Your task to perform on an android device: toggle translation in the chrome app Image 0: 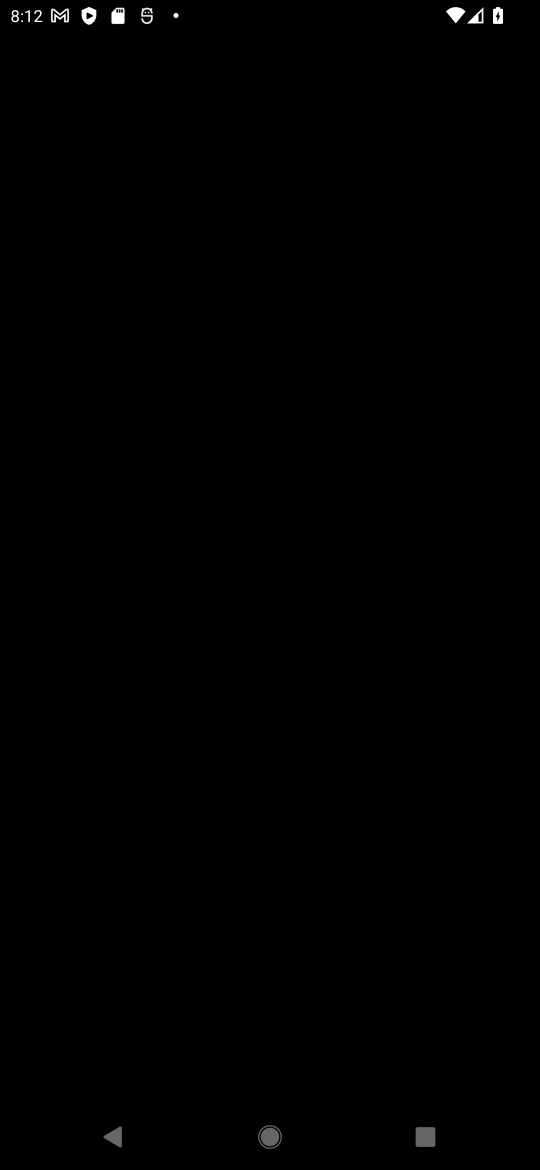
Step 0: press home button
Your task to perform on an android device: toggle translation in the chrome app Image 1: 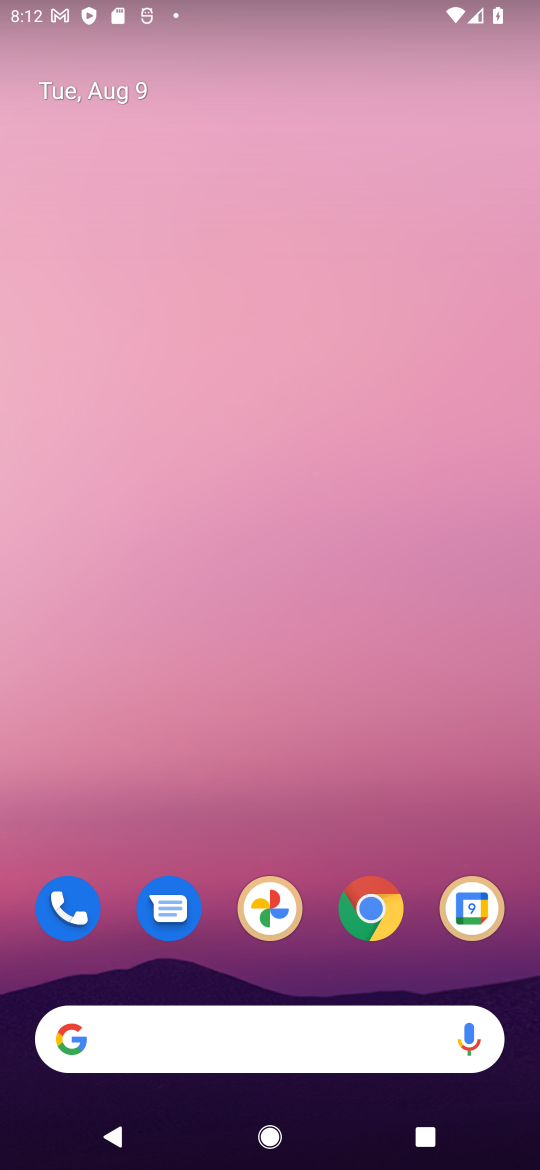
Step 1: click (367, 911)
Your task to perform on an android device: toggle translation in the chrome app Image 2: 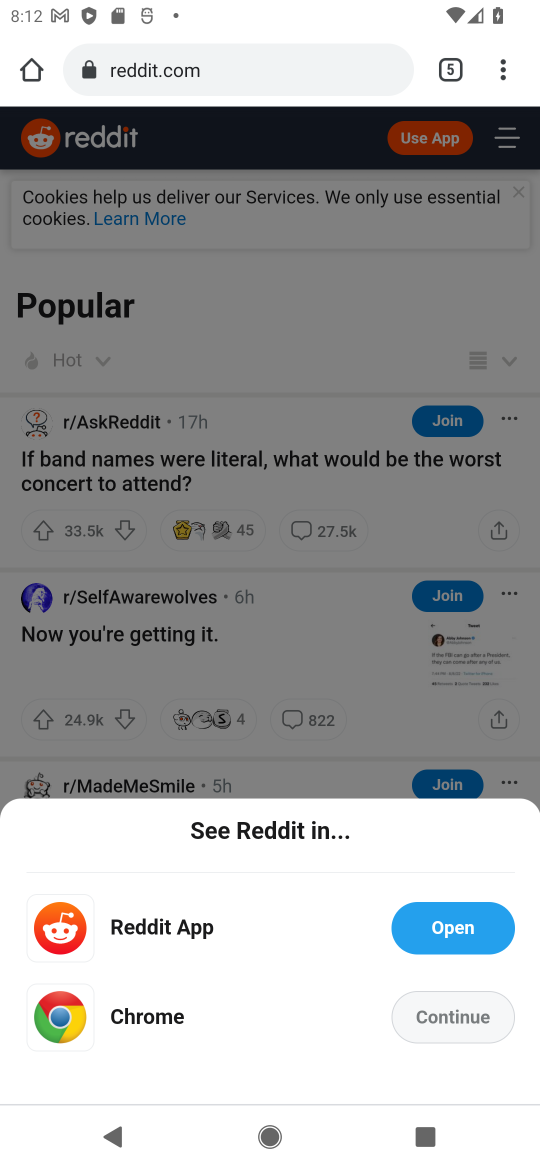
Step 2: drag from (505, 76) to (330, 937)
Your task to perform on an android device: toggle translation in the chrome app Image 3: 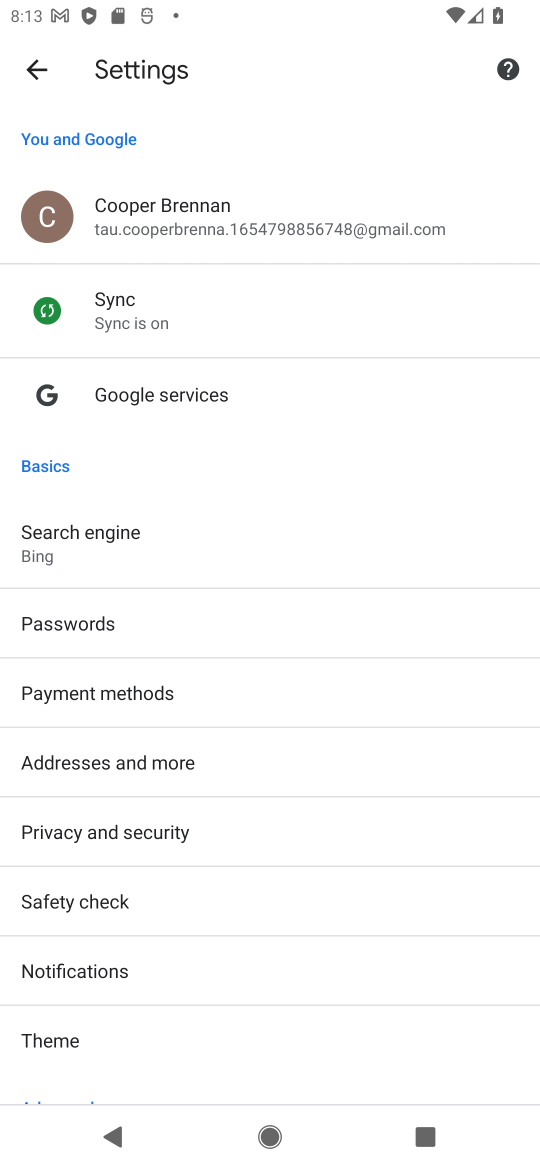
Step 3: drag from (226, 855) to (201, 562)
Your task to perform on an android device: toggle translation in the chrome app Image 4: 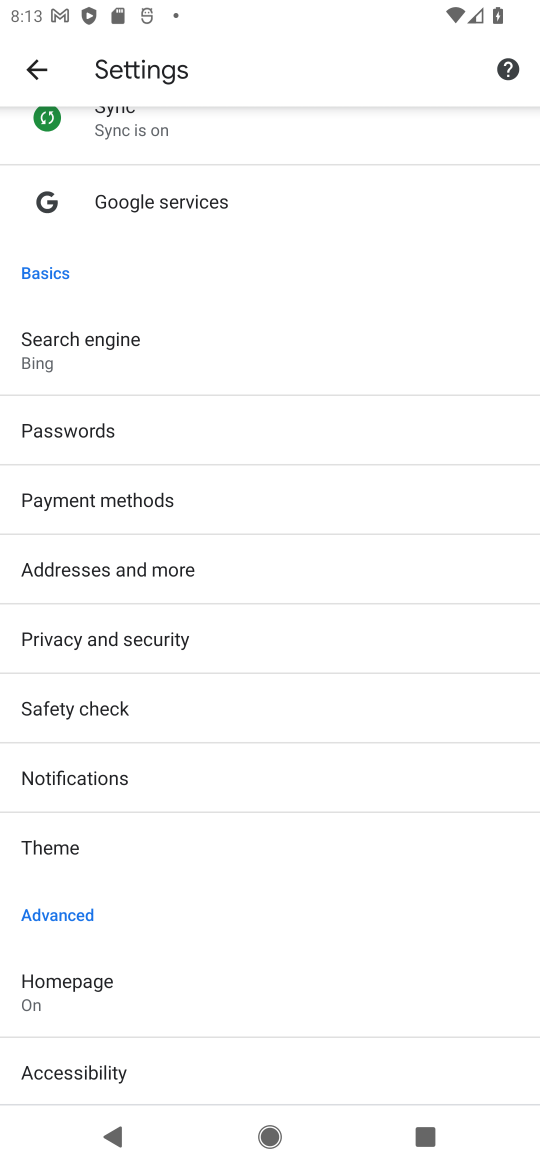
Step 4: drag from (140, 1003) to (212, 497)
Your task to perform on an android device: toggle translation in the chrome app Image 5: 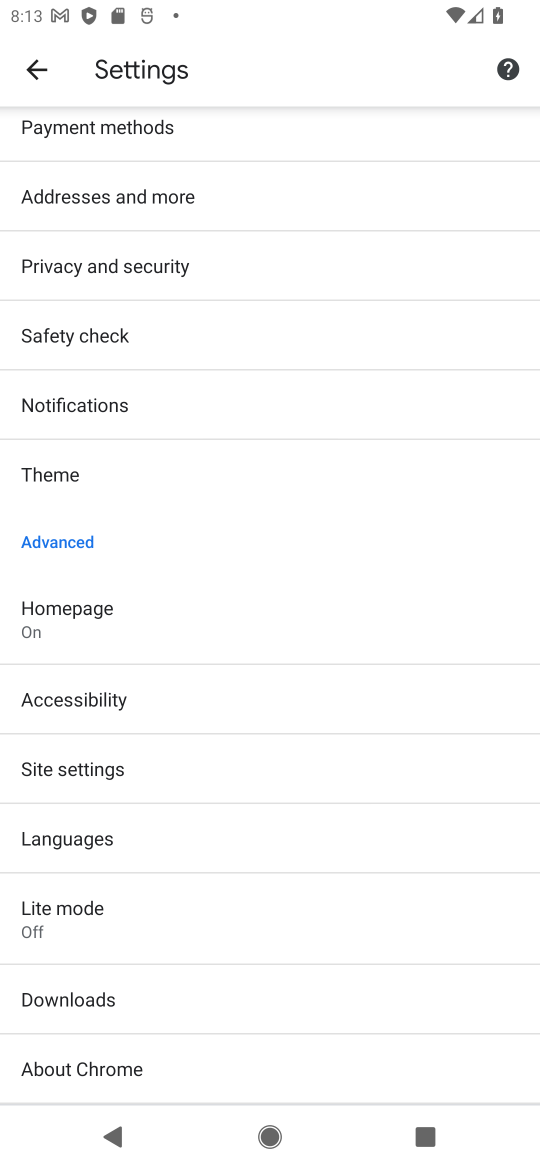
Step 5: click (94, 825)
Your task to perform on an android device: toggle translation in the chrome app Image 6: 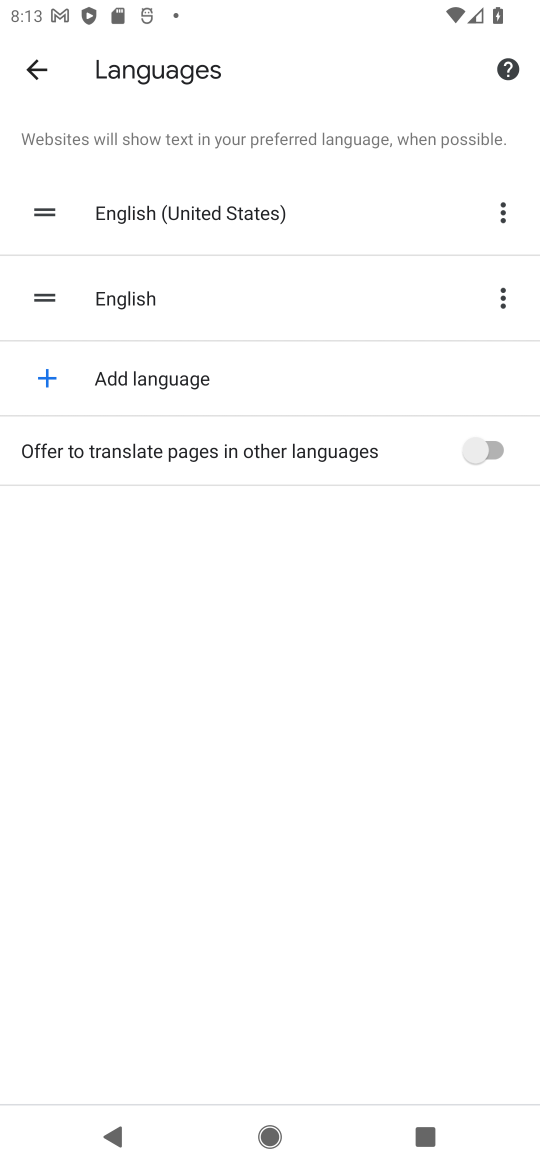
Step 6: click (490, 448)
Your task to perform on an android device: toggle translation in the chrome app Image 7: 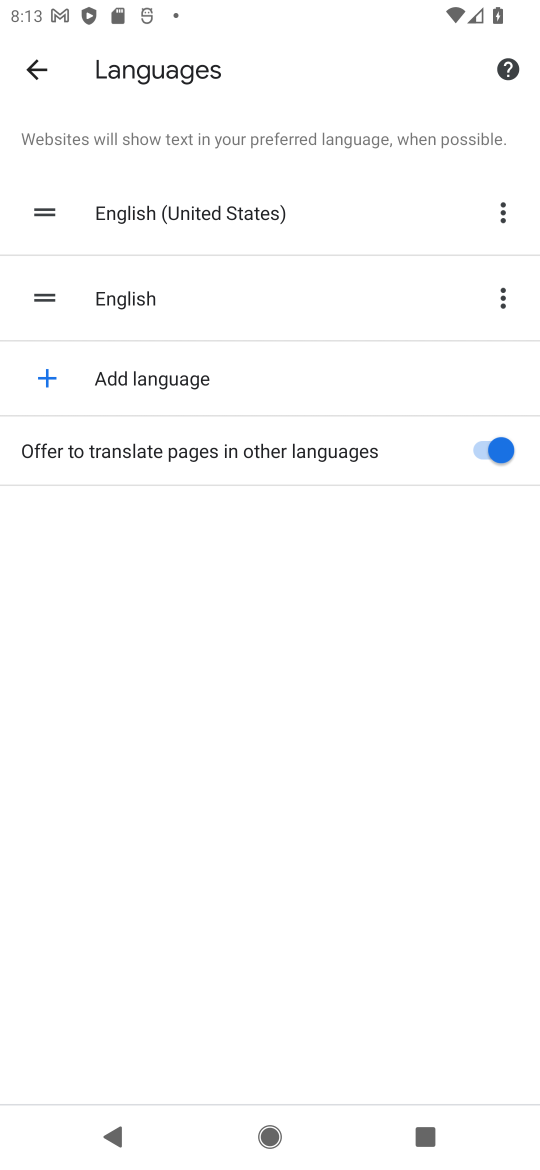
Step 7: task complete